Your task to perform on an android device: open wifi settings Image 0: 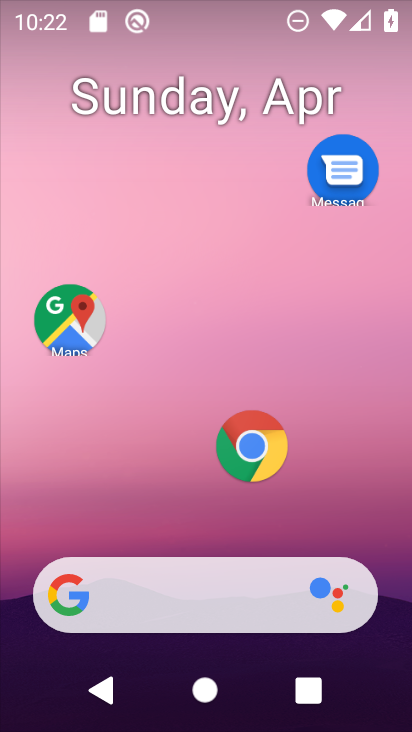
Step 0: click (319, 2)
Your task to perform on an android device: open wifi settings Image 1: 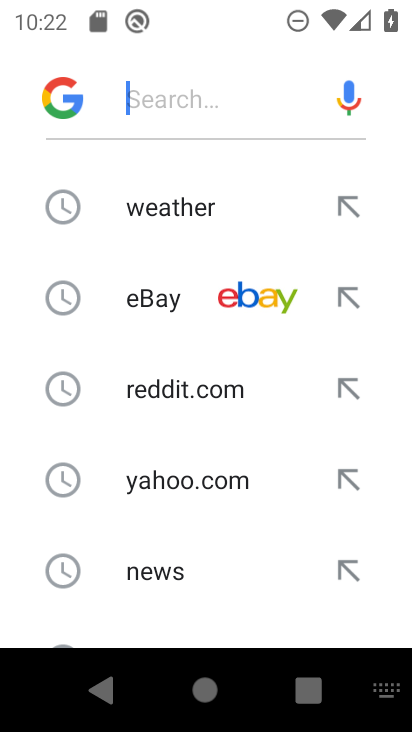
Step 1: press home button
Your task to perform on an android device: open wifi settings Image 2: 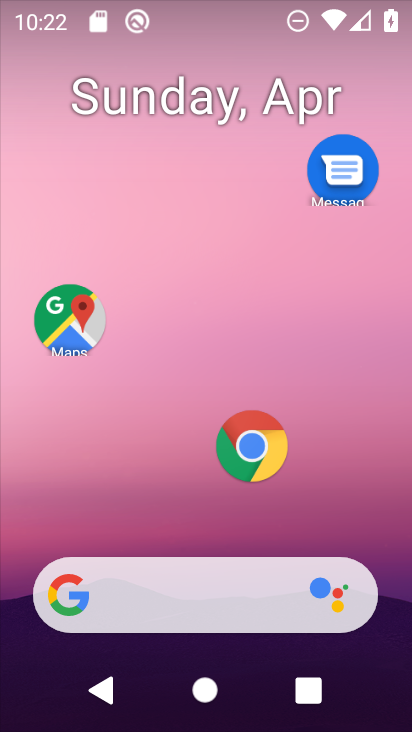
Step 2: drag from (202, 526) to (180, 98)
Your task to perform on an android device: open wifi settings Image 3: 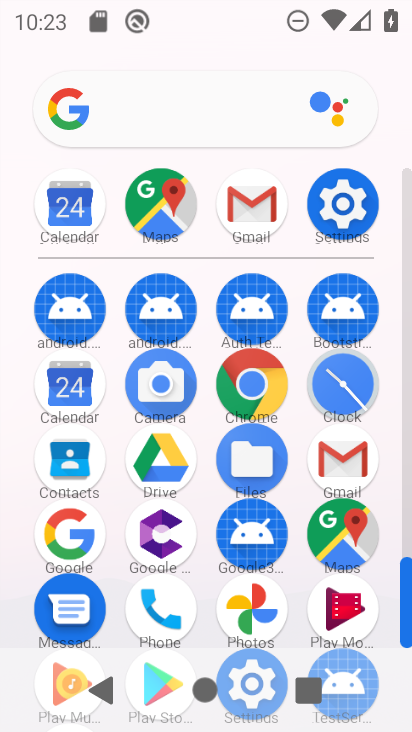
Step 3: click (350, 198)
Your task to perform on an android device: open wifi settings Image 4: 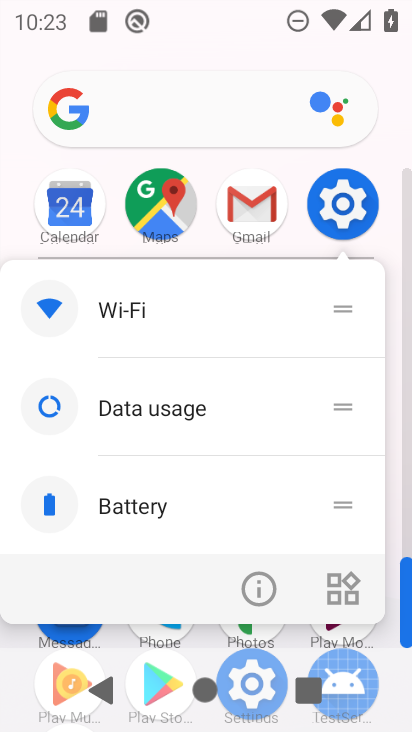
Step 4: click (268, 591)
Your task to perform on an android device: open wifi settings Image 5: 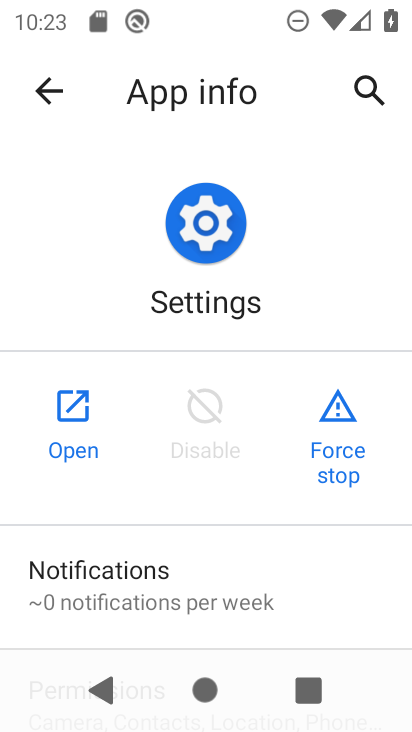
Step 5: drag from (256, 573) to (284, 264)
Your task to perform on an android device: open wifi settings Image 6: 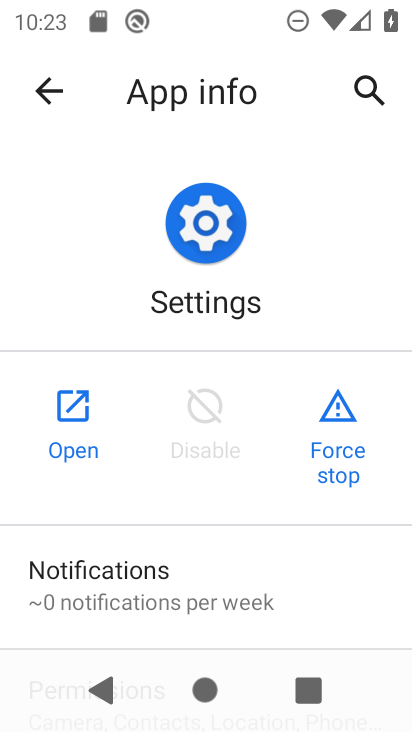
Step 6: click (77, 408)
Your task to perform on an android device: open wifi settings Image 7: 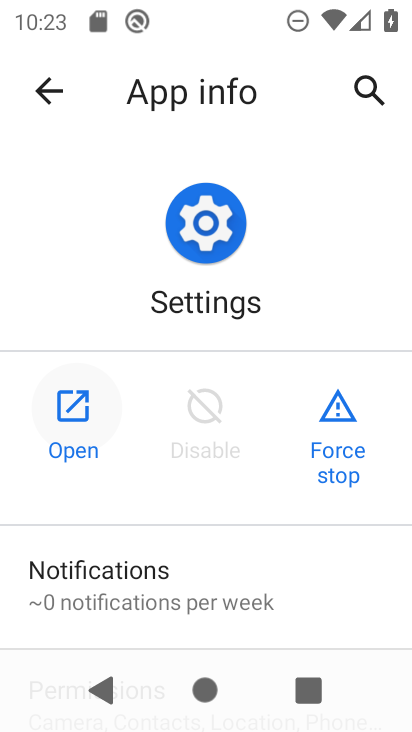
Step 7: click (86, 400)
Your task to perform on an android device: open wifi settings Image 8: 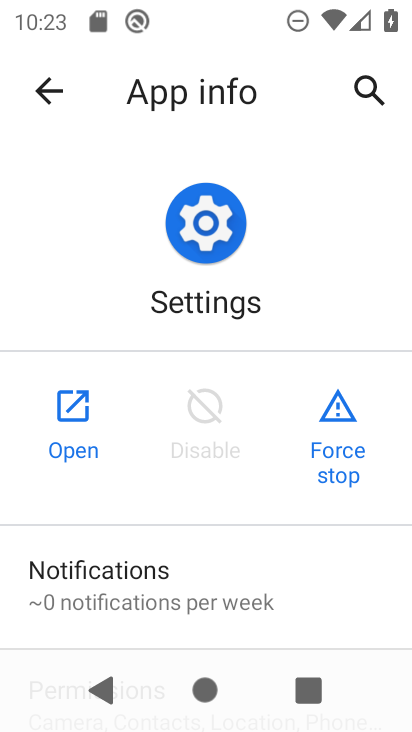
Step 8: click (72, 390)
Your task to perform on an android device: open wifi settings Image 9: 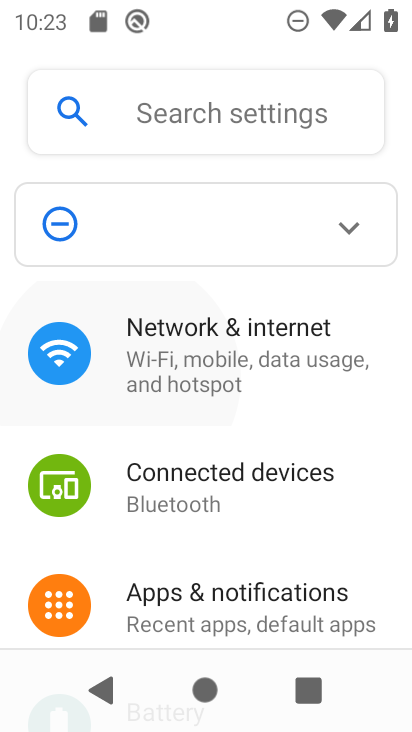
Step 9: click (178, 254)
Your task to perform on an android device: open wifi settings Image 10: 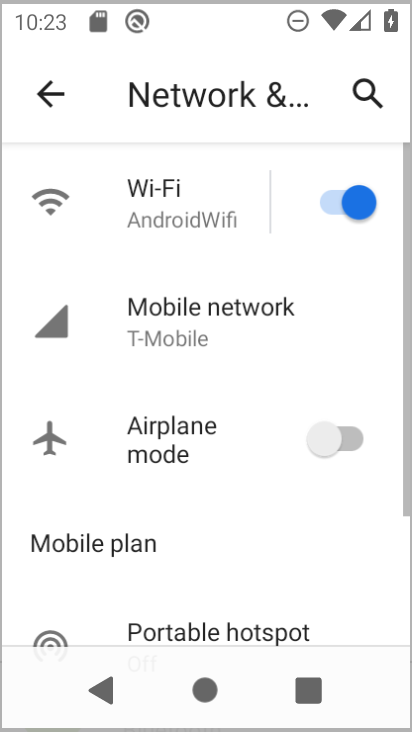
Step 10: click (206, 183)
Your task to perform on an android device: open wifi settings Image 11: 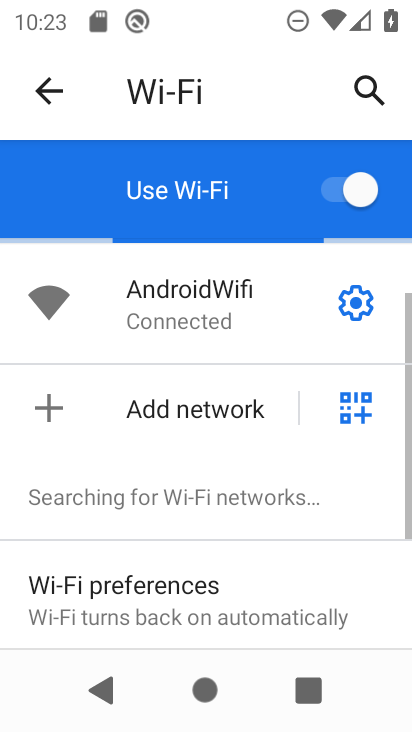
Step 11: task complete